Your task to perform on an android device: Go to Maps Image 0: 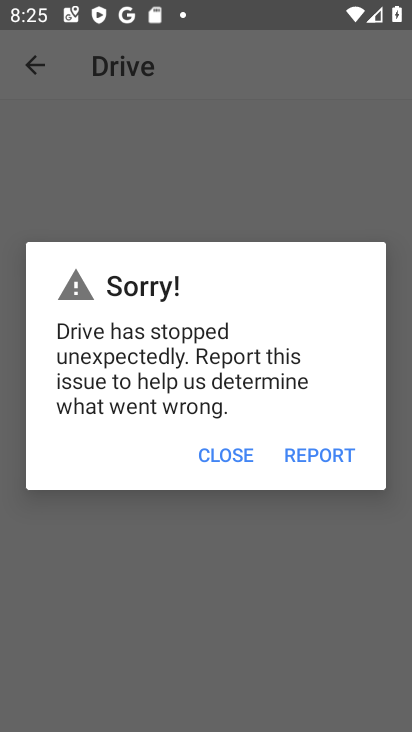
Step 0: press home button
Your task to perform on an android device: Go to Maps Image 1: 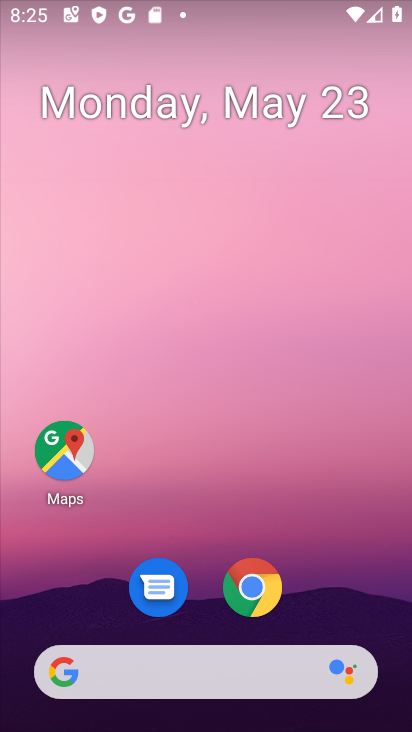
Step 1: click (31, 449)
Your task to perform on an android device: Go to Maps Image 2: 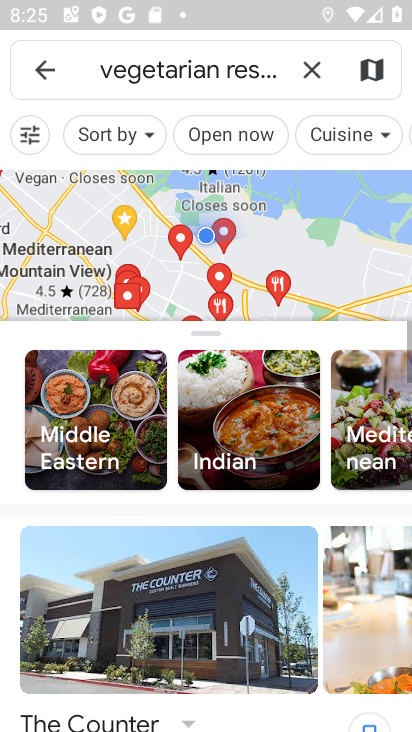
Step 2: task complete